Your task to perform on an android device: remove spam from my inbox in the gmail app Image 0: 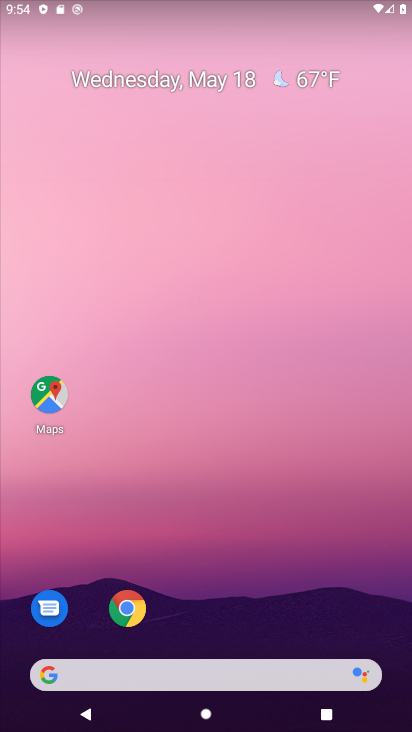
Step 0: drag from (228, 611) to (257, 30)
Your task to perform on an android device: remove spam from my inbox in the gmail app Image 1: 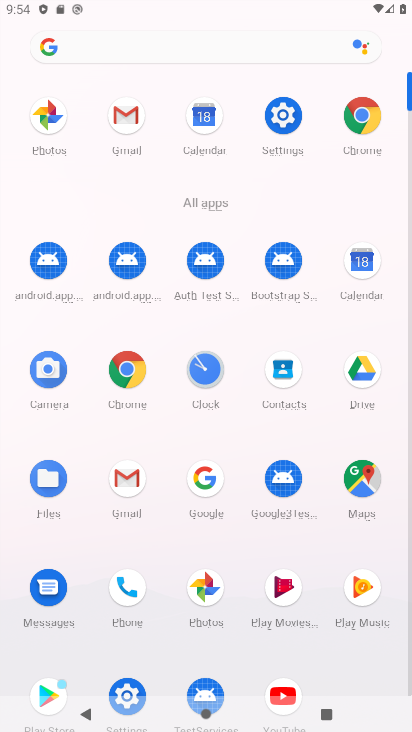
Step 1: click (130, 504)
Your task to perform on an android device: remove spam from my inbox in the gmail app Image 2: 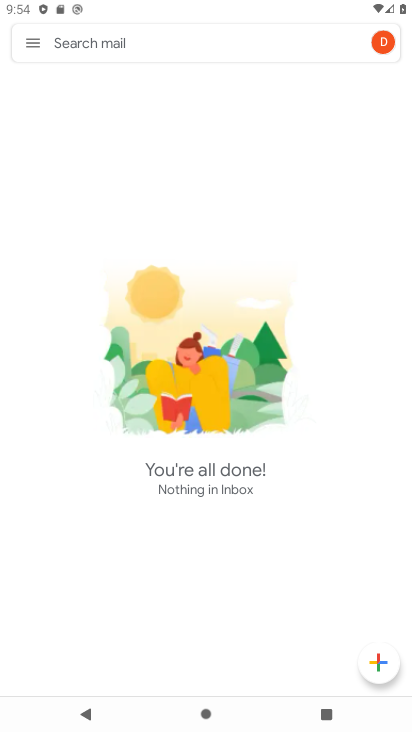
Step 2: click (33, 50)
Your task to perform on an android device: remove spam from my inbox in the gmail app Image 3: 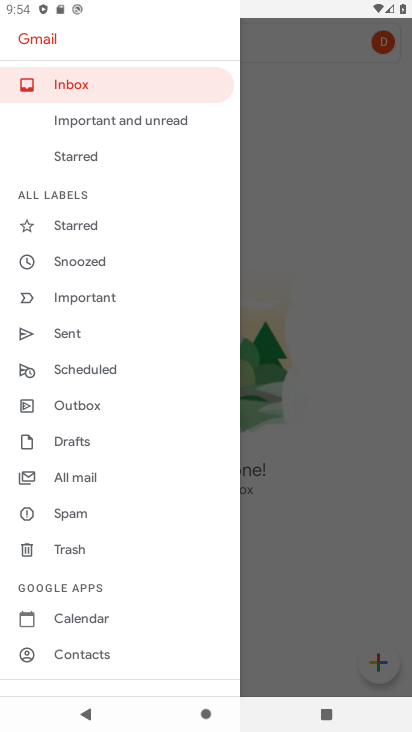
Step 3: click (86, 510)
Your task to perform on an android device: remove spam from my inbox in the gmail app Image 4: 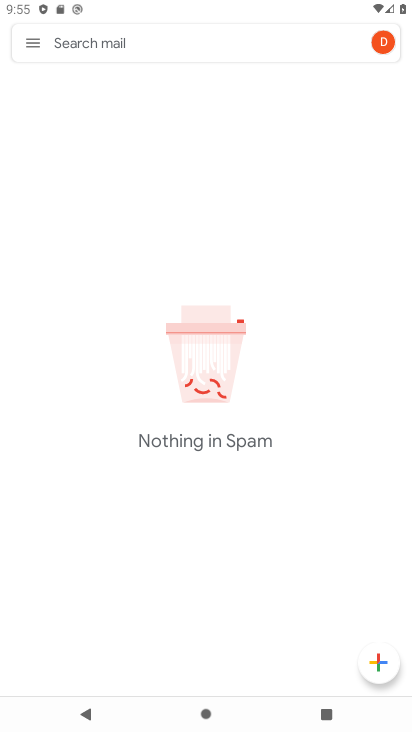
Step 4: task complete